Your task to perform on an android device: Show the shopping cart on bestbuy.com. Search for logitech g502 on bestbuy.com, select the first entry, and add it to the cart. Image 0: 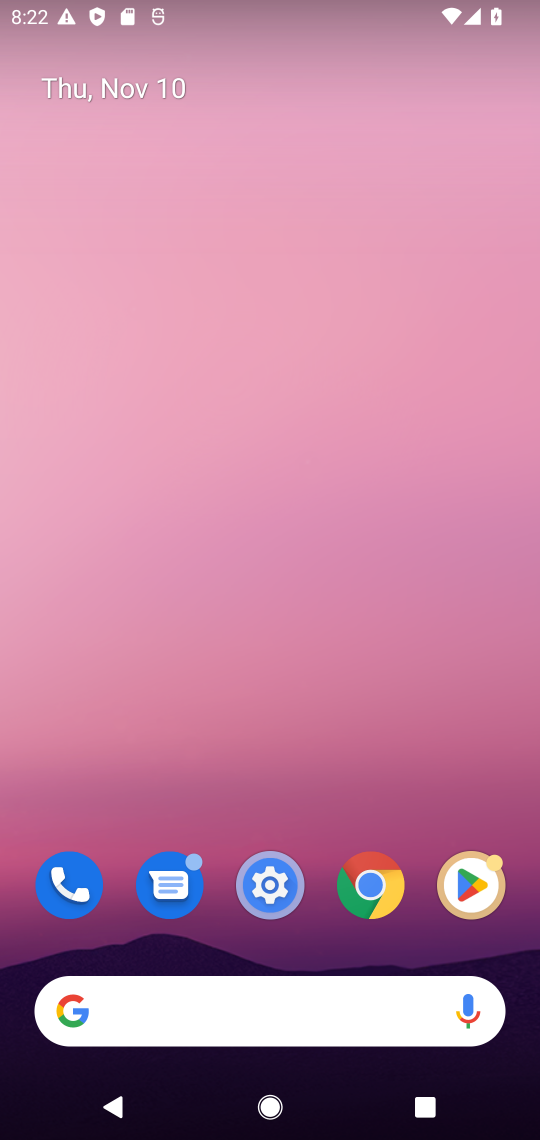
Step 0: click (366, 883)
Your task to perform on an android device: Show the shopping cart on bestbuy.com. Search for logitech g502 on bestbuy.com, select the first entry, and add it to the cart. Image 1: 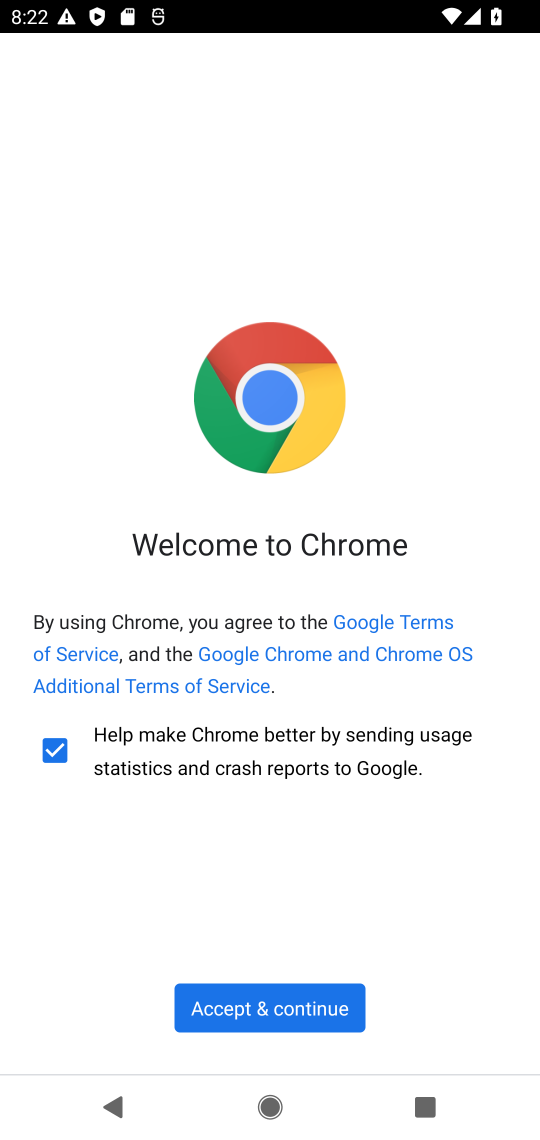
Step 1: click (235, 1006)
Your task to perform on an android device: Show the shopping cart on bestbuy.com. Search for logitech g502 on bestbuy.com, select the first entry, and add it to the cart. Image 2: 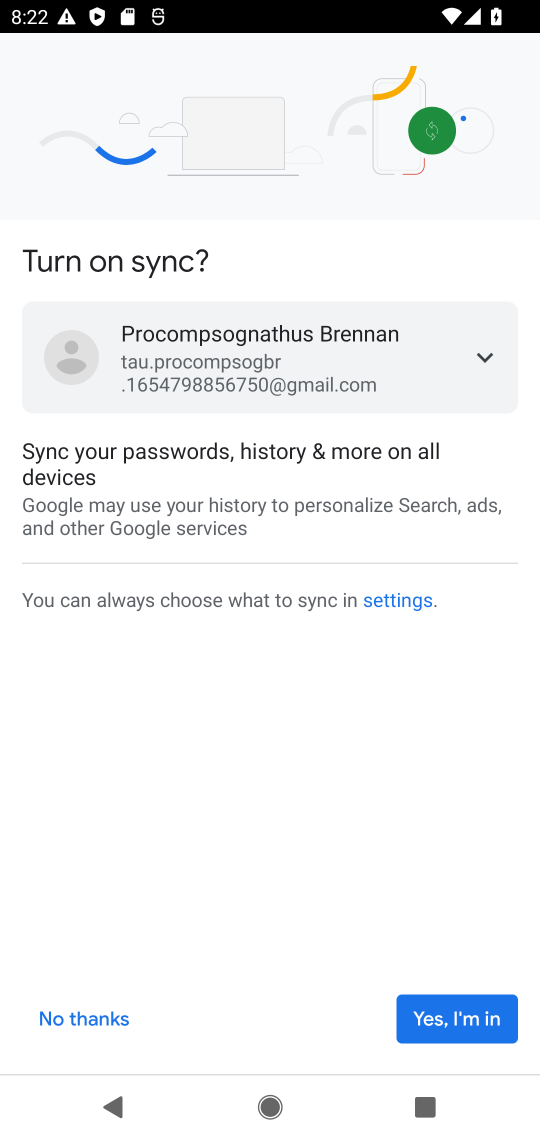
Step 2: click (418, 1003)
Your task to perform on an android device: Show the shopping cart on bestbuy.com. Search for logitech g502 on bestbuy.com, select the first entry, and add it to the cart. Image 3: 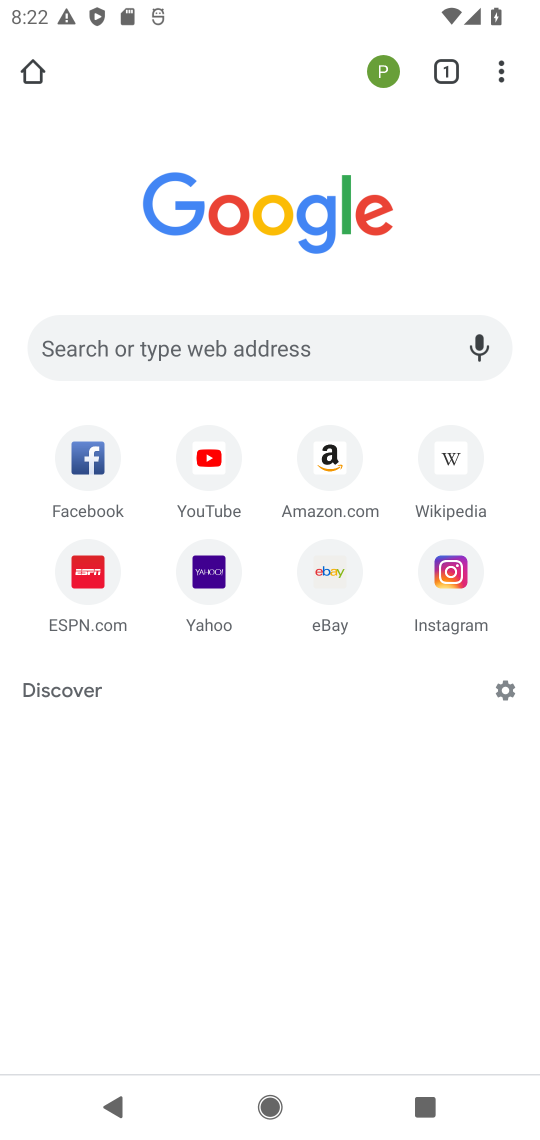
Step 3: click (235, 341)
Your task to perform on an android device: Show the shopping cart on bestbuy.com. Search for logitech g502 on bestbuy.com, select the first entry, and add it to the cart. Image 4: 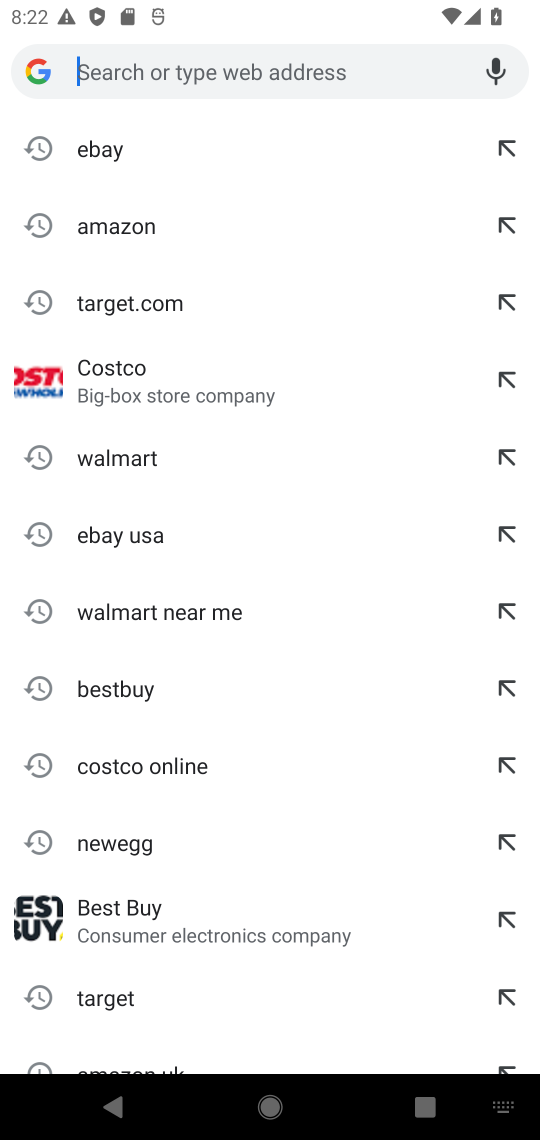
Step 4: click (163, 929)
Your task to perform on an android device: Show the shopping cart on bestbuy.com. Search for logitech g502 on bestbuy.com, select the first entry, and add it to the cart. Image 5: 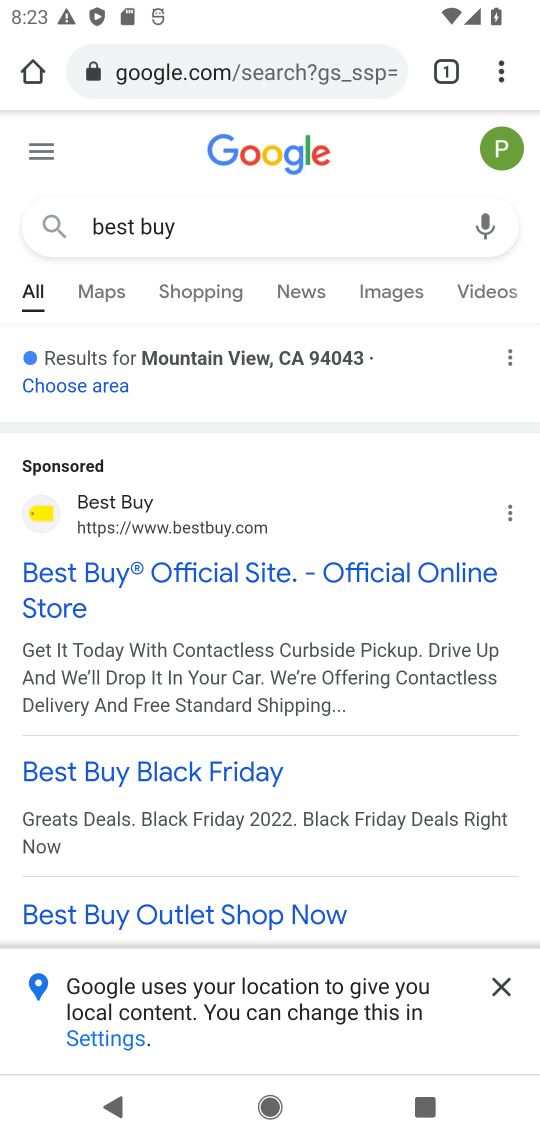
Step 5: click (105, 568)
Your task to perform on an android device: Show the shopping cart on bestbuy.com. Search for logitech g502 on bestbuy.com, select the first entry, and add it to the cart. Image 6: 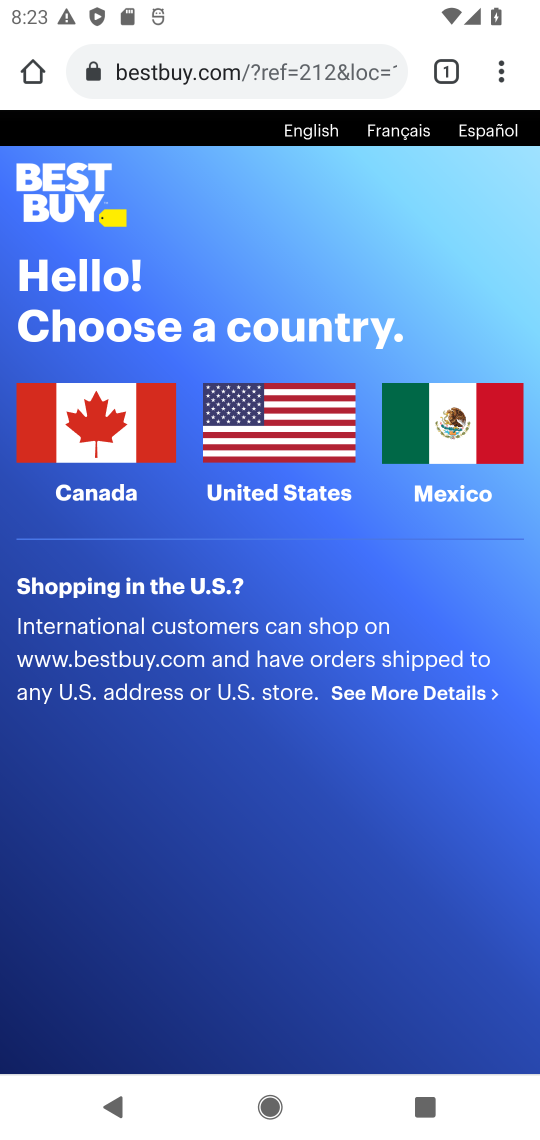
Step 6: click (281, 404)
Your task to perform on an android device: Show the shopping cart on bestbuy.com. Search for logitech g502 on bestbuy.com, select the first entry, and add it to the cart. Image 7: 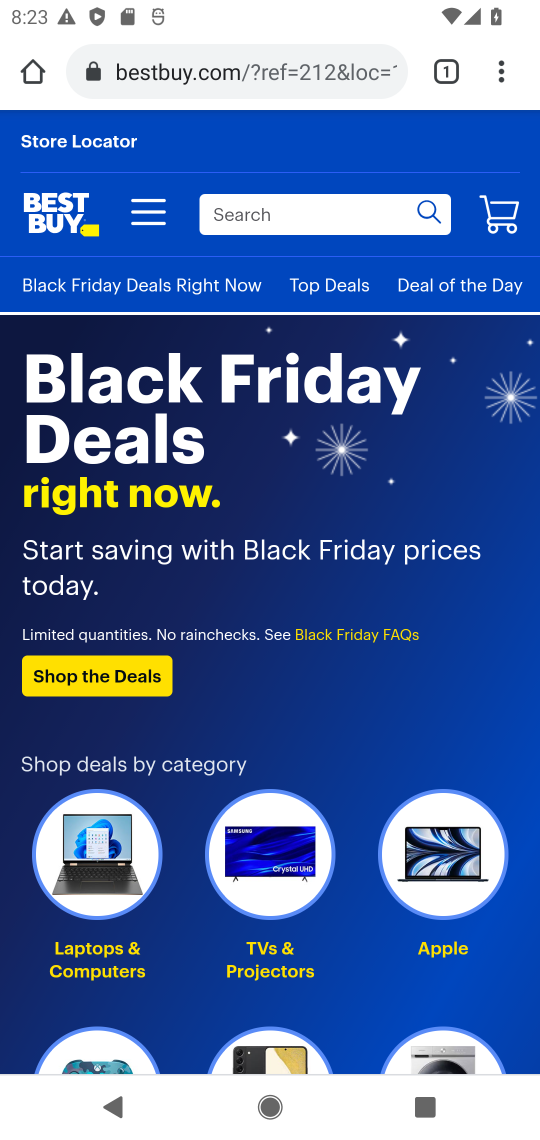
Step 7: click (263, 221)
Your task to perform on an android device: Show the shopping cart on bestbuy.com. Search for logitech g502 on bestbuy.com, select the first entry, and add it to the cart. Image 8: 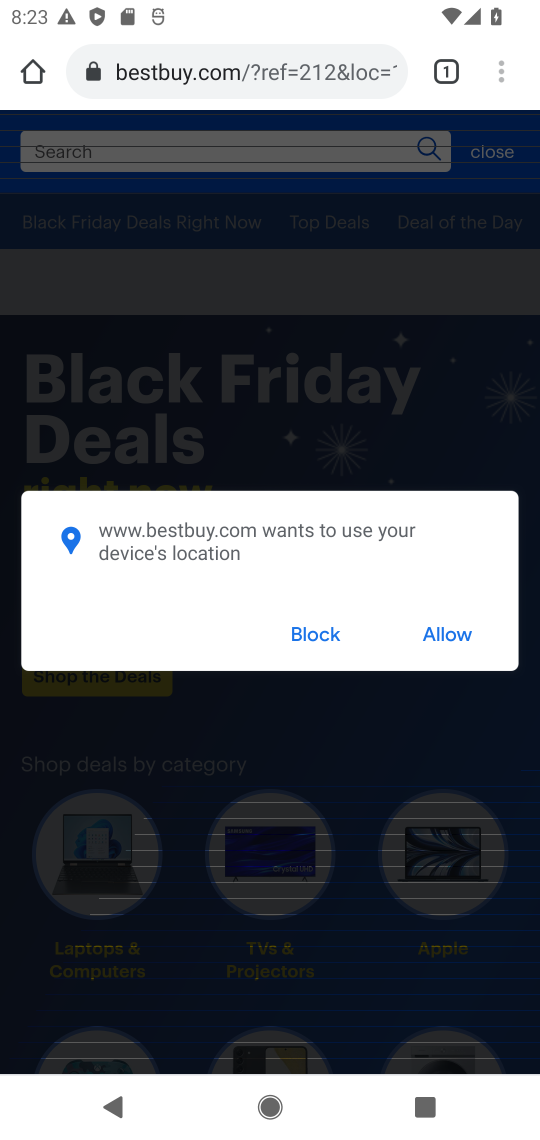
Step 8: type "logitech g502"
Your task to perform on an android device: Show the shopping cart on bestbuy.com. Search for logitech g502 on bestbuy.com, select the first entry, and add it to the cart. Image 9: 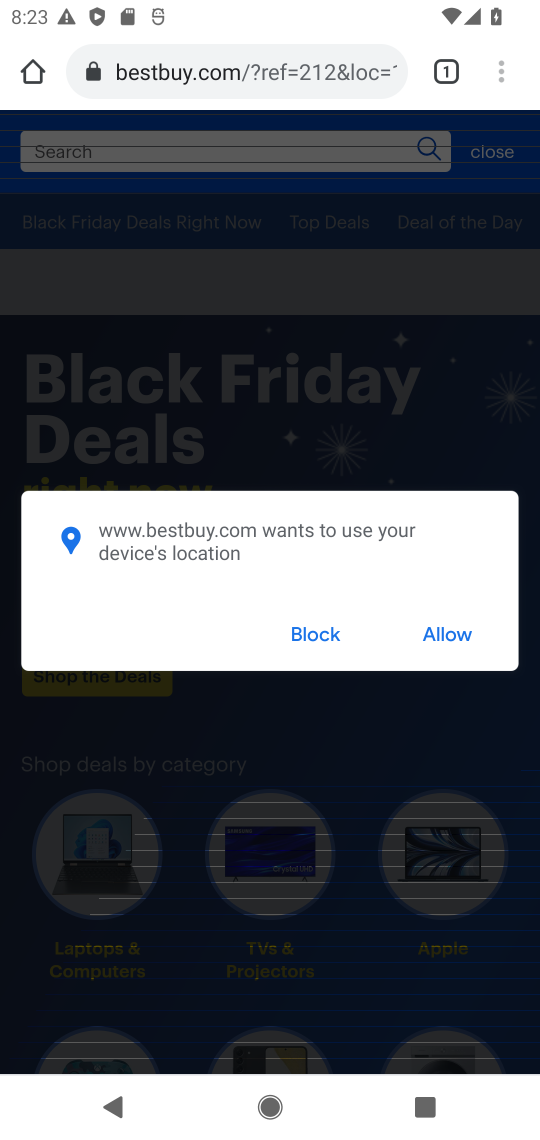
Step 9: click (307, 625)
Your task to perform on an android device: Show the shopping cart on bestbuy.com. Search for logitech g502 on bestbuy.com, select the first entry, and add it to the cart. Image 10: 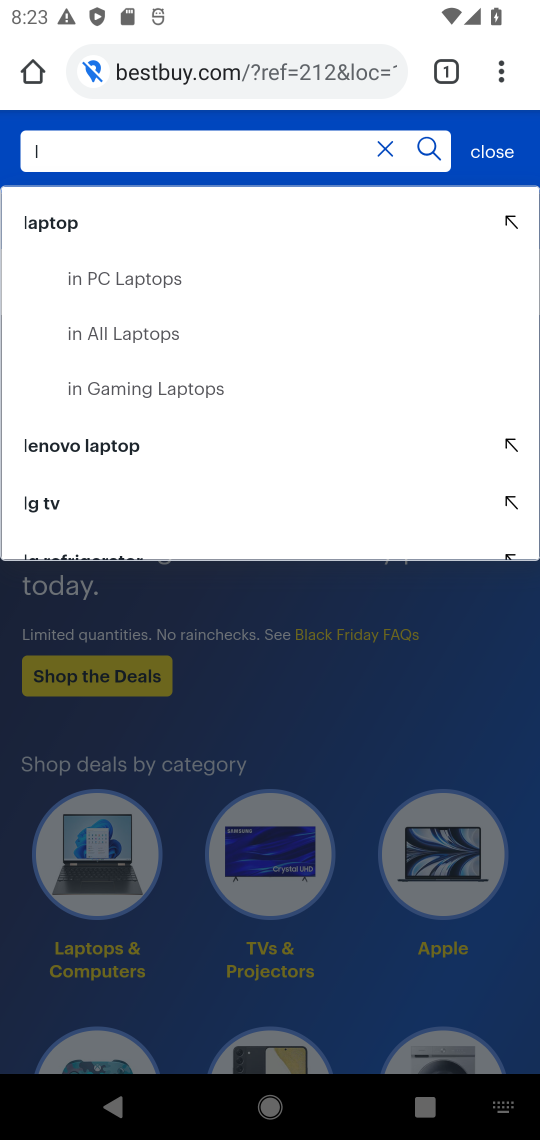
Step 10: click (210, 151)
Your task to perform on an android device: Show the shopping cart on bestbuy.com. Search for logitech g502 on bestbuy.com, select the first entry, and add it to the cart. Image 11: 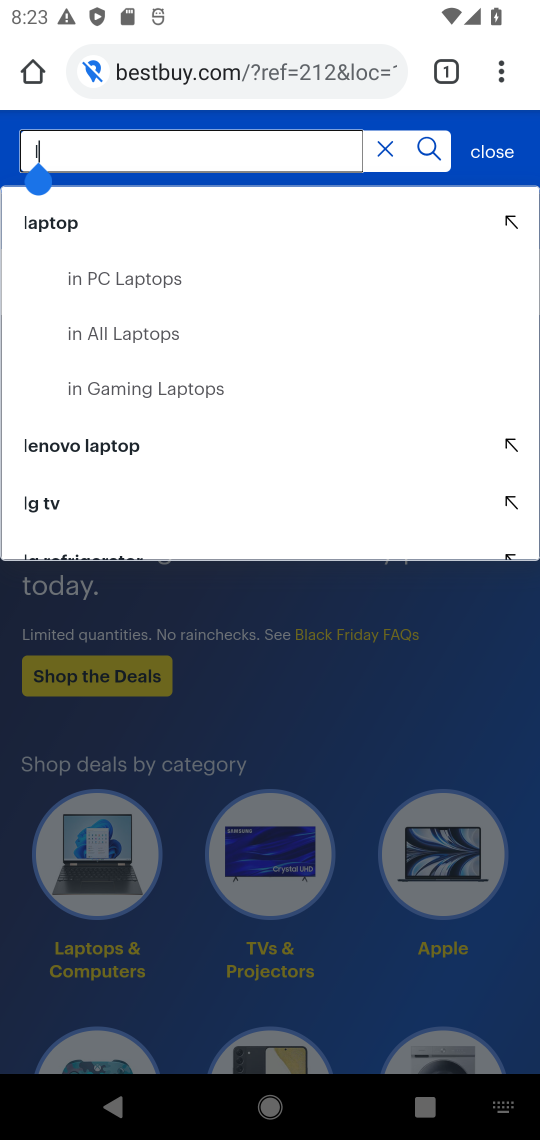
Step 11: click (398, 155)
Your task to perform on an android device: Show the shopping cart on bestbuy.com. Search for logitech g502 on bestbuy.com, select the first entry, and add it to the cart. Image 12: 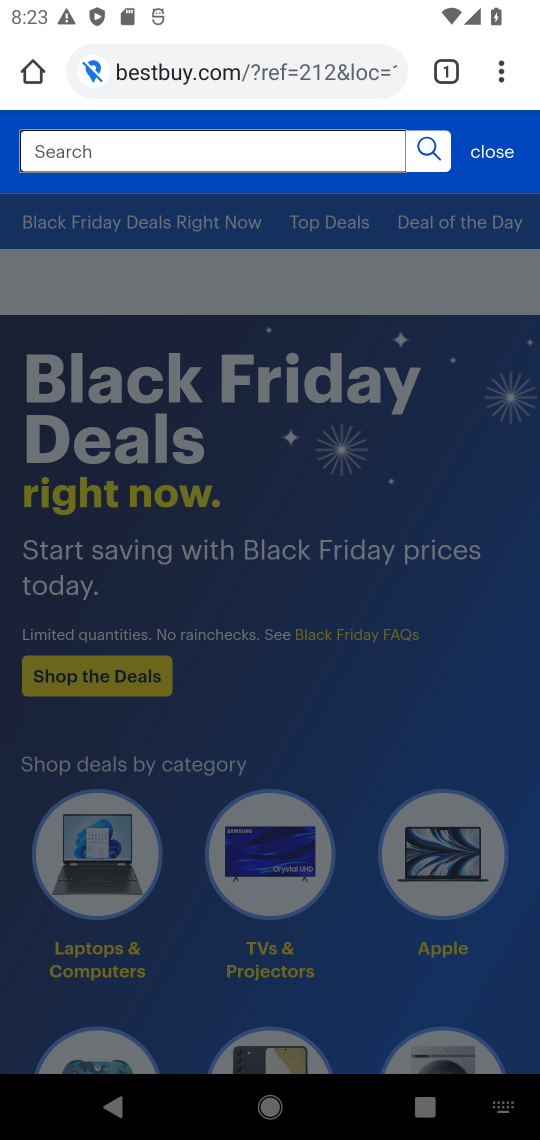
Step 12: type "logitech g502"
Your task to perform on an android device: Show the shopping cart on bestbuy.com. Search for logitech g502 on bestbuy.com, select the first entry, and add it to the cart. Image 13: 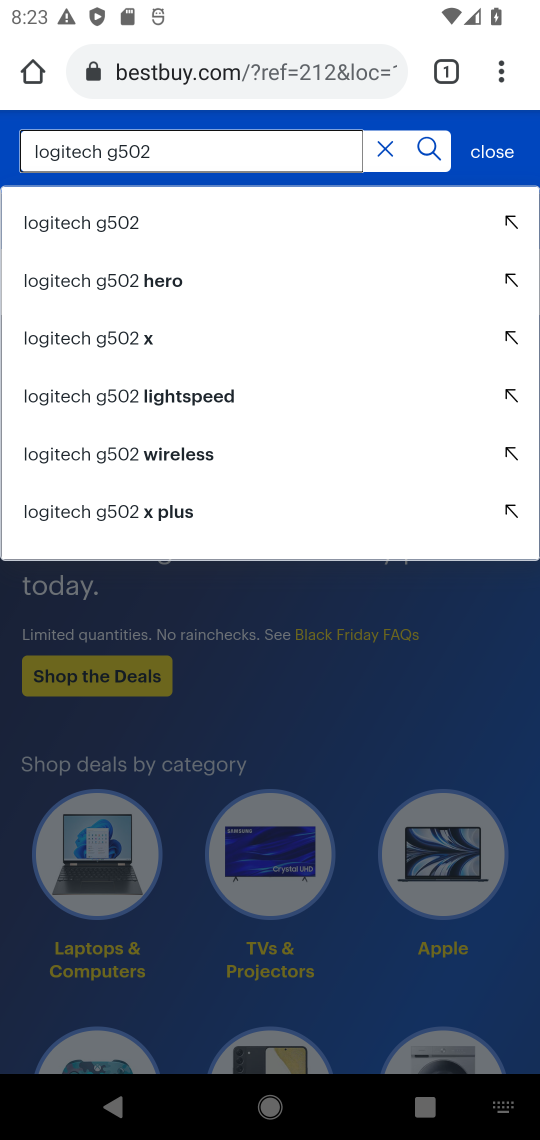
Step 13: click (67, 225)
Your task to perform on an android device: Show the shopping cart on bestbuy.com. Search for logitech g502 on bestbuy.com, select the first entry, and add it to the cart. Image 14: 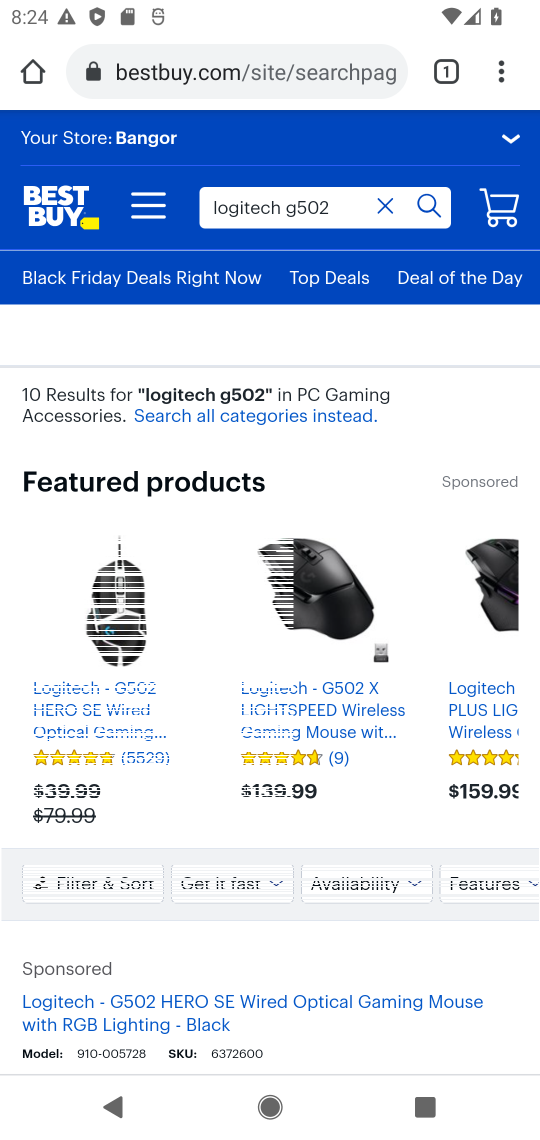
Step 14: drag from (318, 996) to (438, 364)
Your task to perform on an android device: Show the shopping cart on bestbuy.com. Search for logitech g502 on bestbuy.com, select the first entry, and add it to the cart. Image 15: 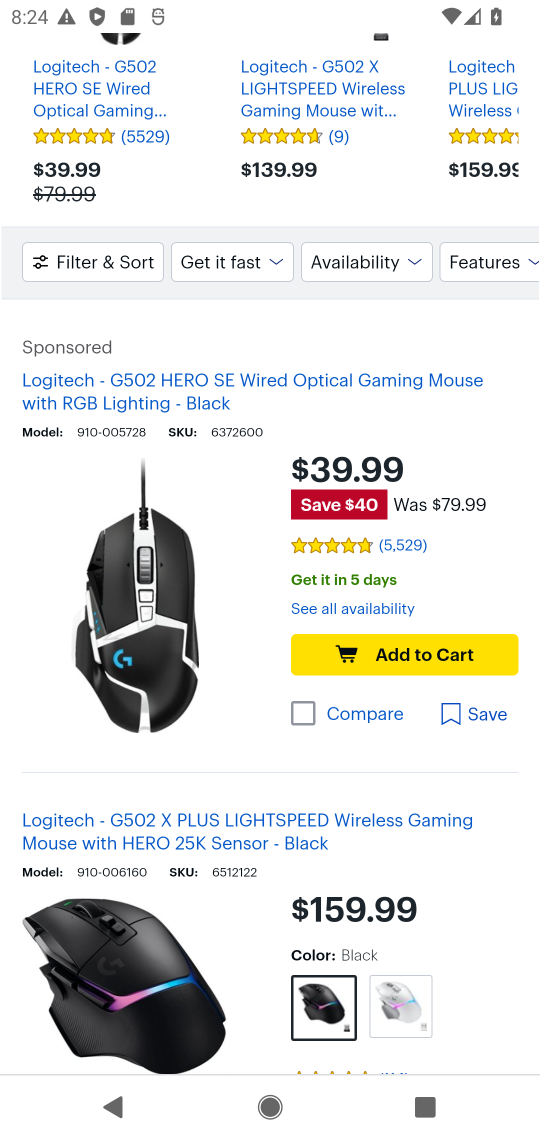
Step 15: click (368, 664)
Your task to perform on an android device: Show the shopping cart on bestbuy.com. Search for logitech g502 on bestbuy.com, select the first entry, and add it to the cart. Image 16: 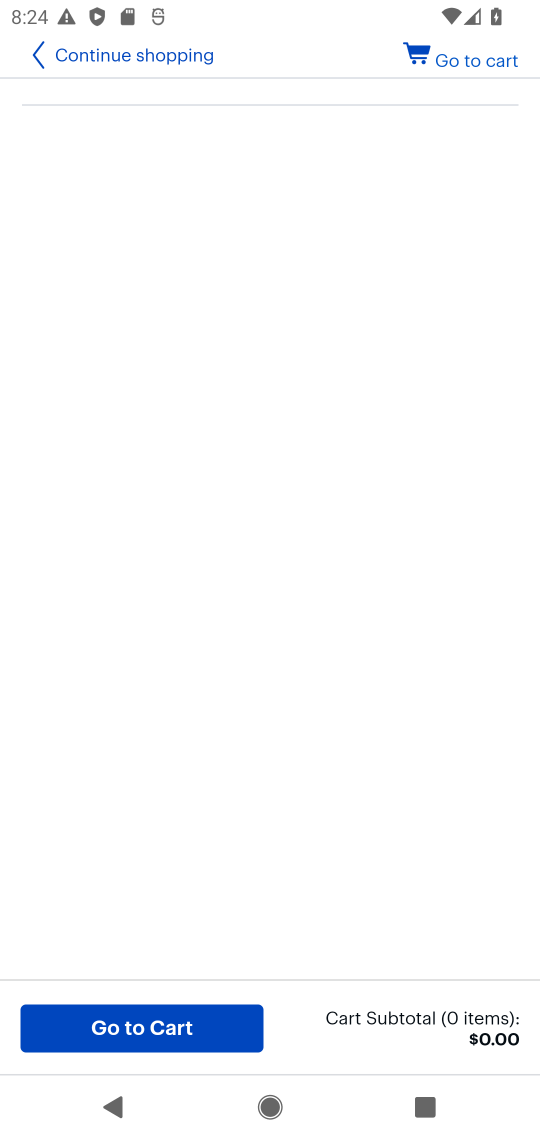
Step 16: task complete